Your task to perform on an android device: check the backup settings in the google photos Image 0: 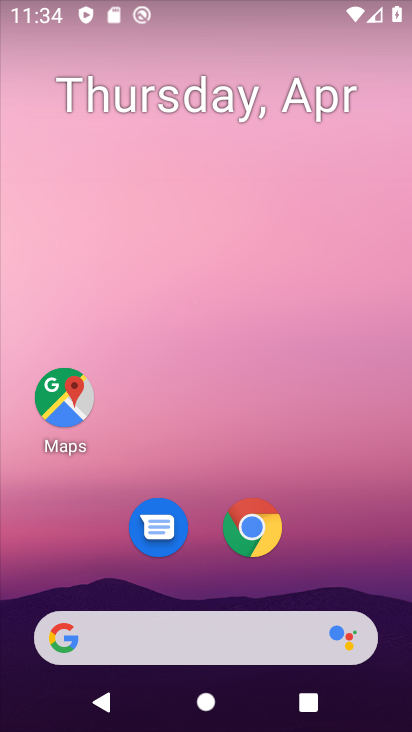
Step 0: drag from (213, 386) to (214, 55)
Your task to perform on an android device: check the backup settings in the google photos Image 1: 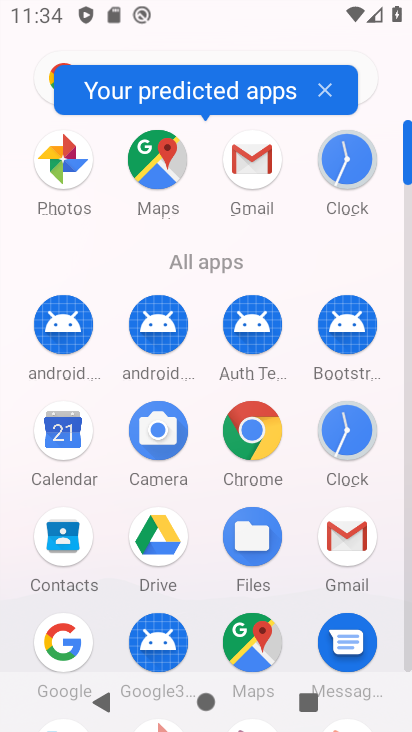
Step 1: click (80, 170)
Your task to perform on an android device: check the backup settings in the google photos Image 2: 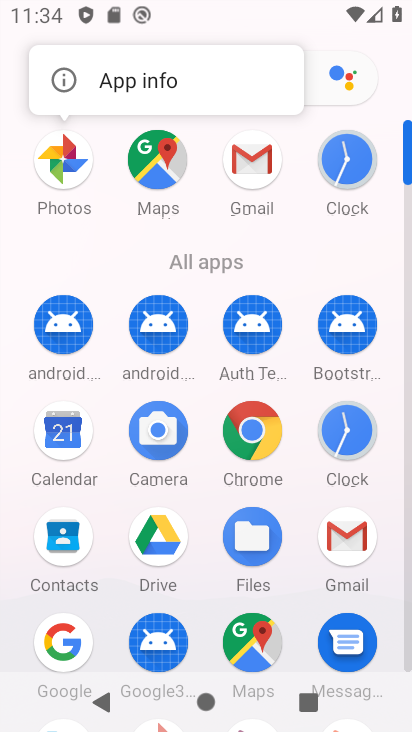
Step 2: click (80, 170)
Your task to perform on an android device: check the backup settings in the google photos Image 3: 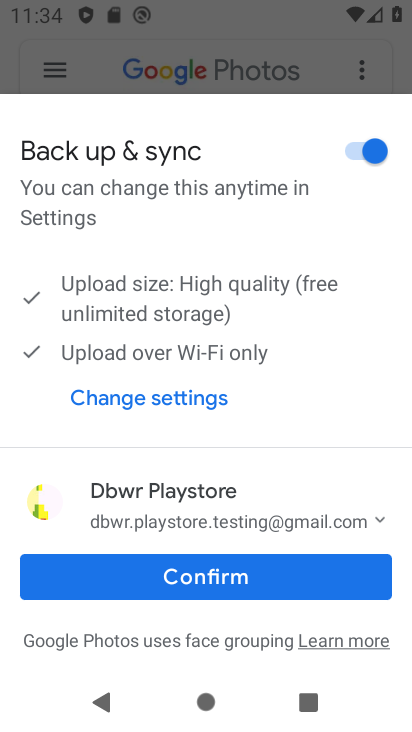
Step 3: click (177, 578)
Your task to perform on an android device: check the backup settings in the google photos Image 4: 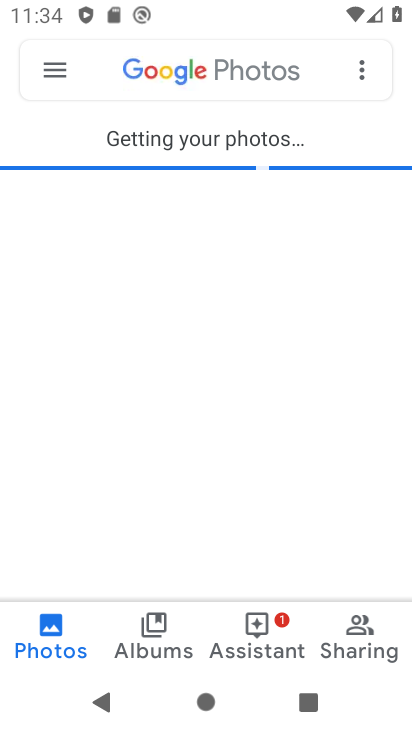
Step 4: click (49, 69)
Your task to perform on an android device: check the backup settings in the google photos Image 5: 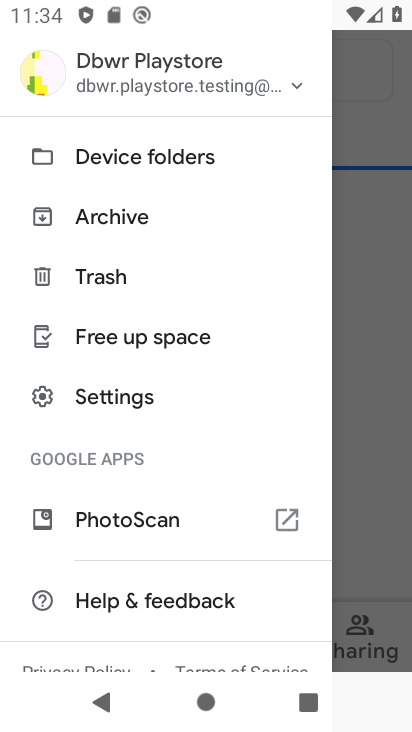
Step 5: click (106, 403)
Your task to perform on an android device: check the backup settings in the google photos Image 6: 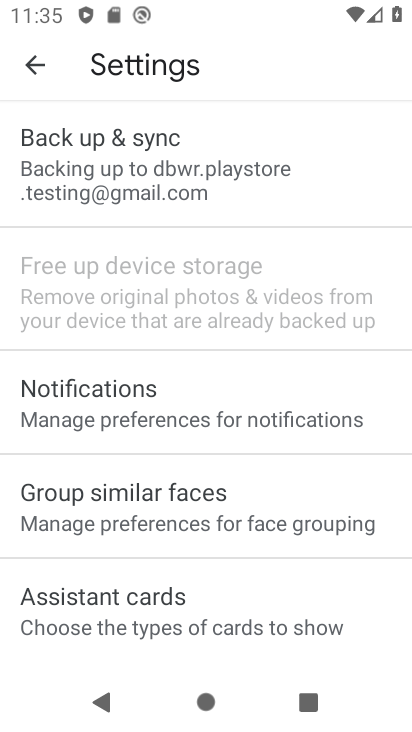
Step 6: click (188, 147)
Your task to perform on an android device: check the backup settings in the google photos Image 7: 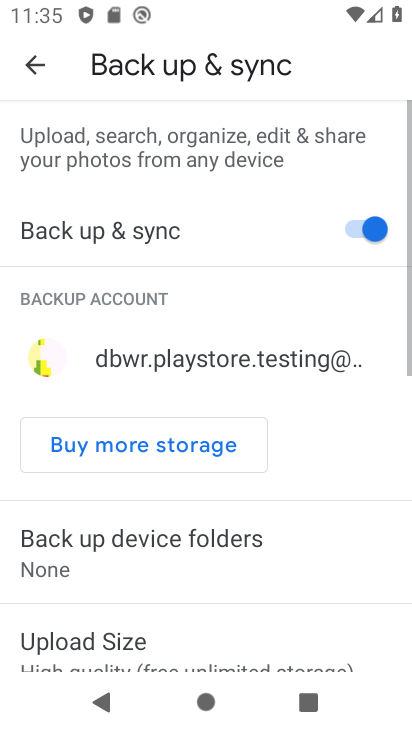
Step 7: task complete